Your task to perform on an android device: Go to internet settings Image 0: 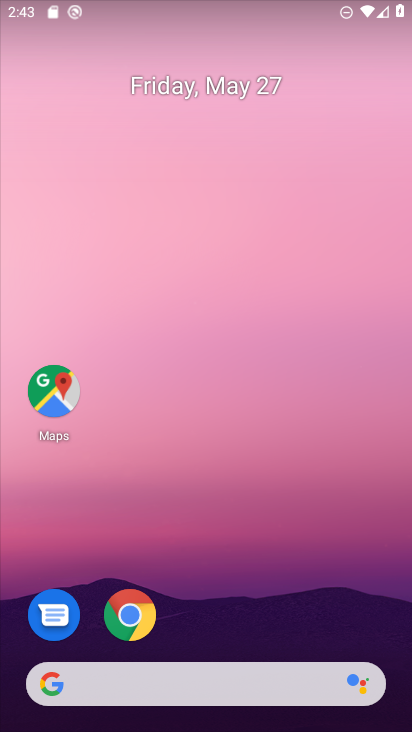
Step 0: drag from (316, 565) to (220, 16)
Your task to perform on an android device: Go to internet settings Image 1: 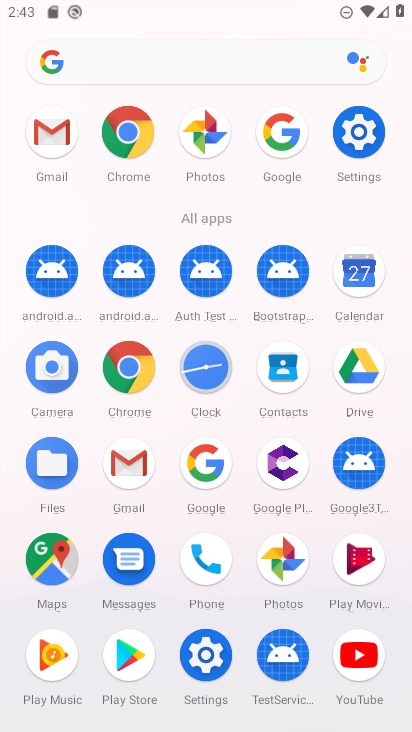
Step 1: click (361, 139)
Your task to perform on an android device: Go to internet settings Image 2: 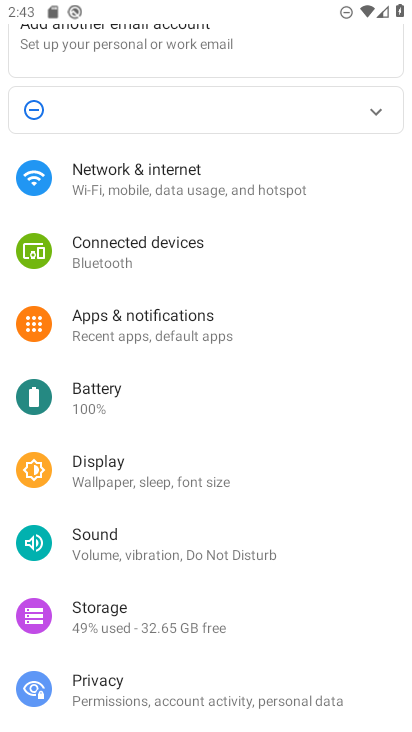
Step 2: click (206, 182)
Your task to perform on an android device: Go to internet settings Image 3: 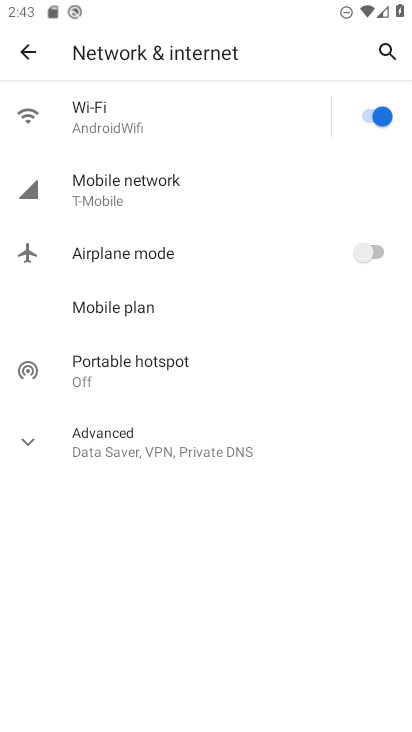
Step 3: task complete